Your task to perform on an android device: change text size in settings app Image 0: 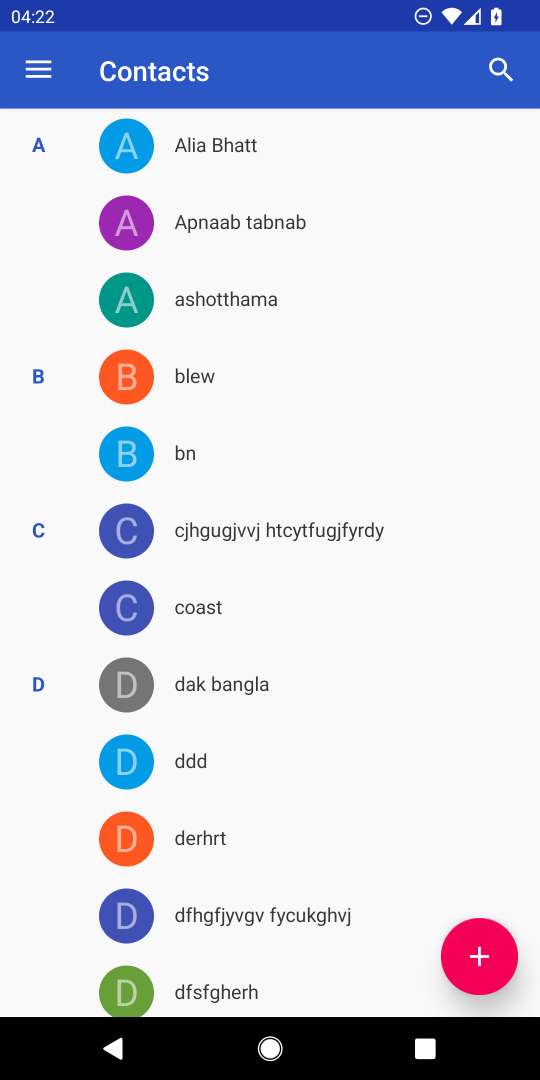
Step 0: press home button
Your task to perform on an android device: change text size in settings app Image 1: 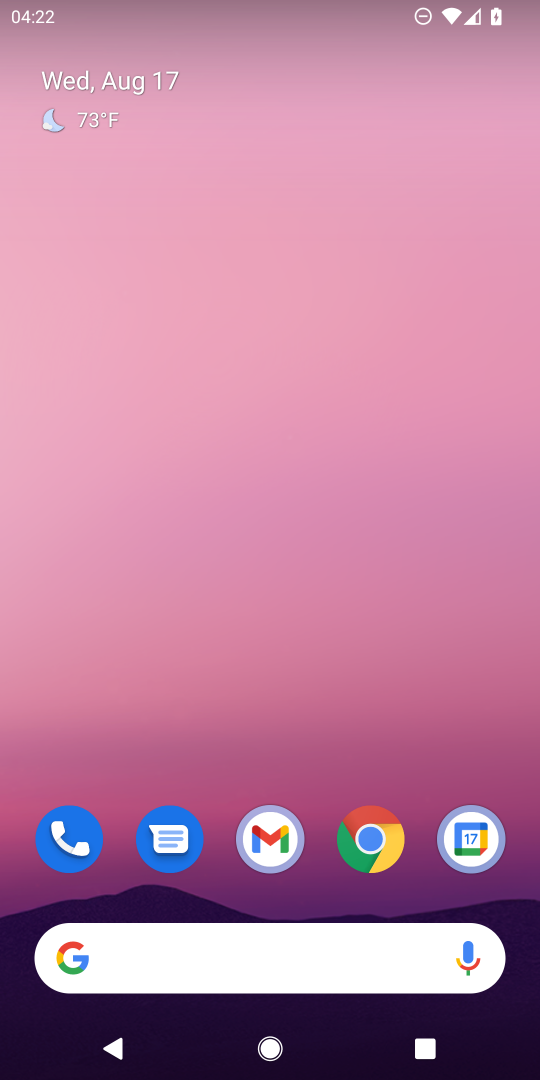
Step 1: drag from (354, 705) to (360, 23)
Your task to perform on an android device: change text size in settings app Image 2: 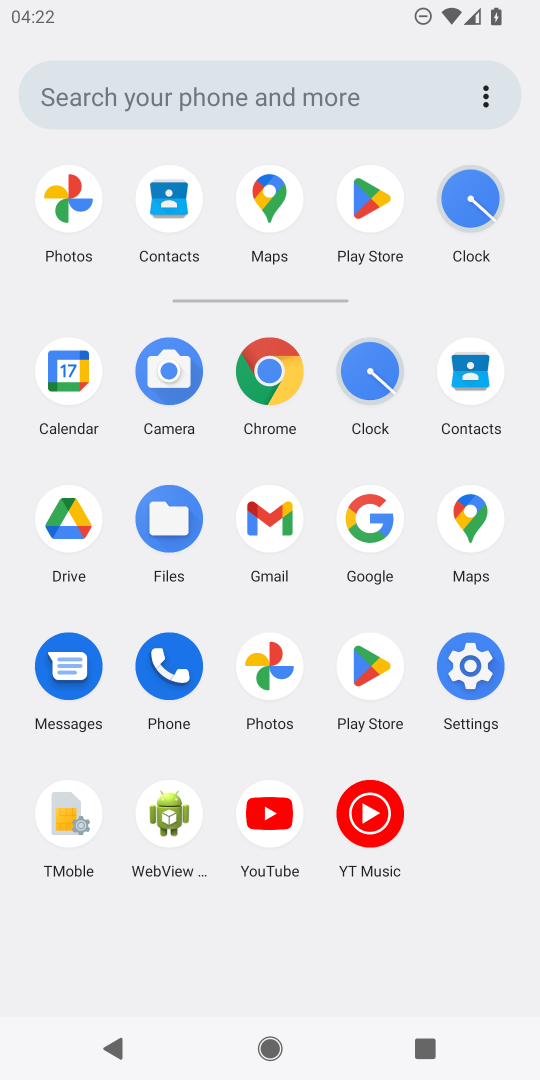
Step 2: click (462, 666)
Your task to perform on an android device: change text size in settings app Image 3: 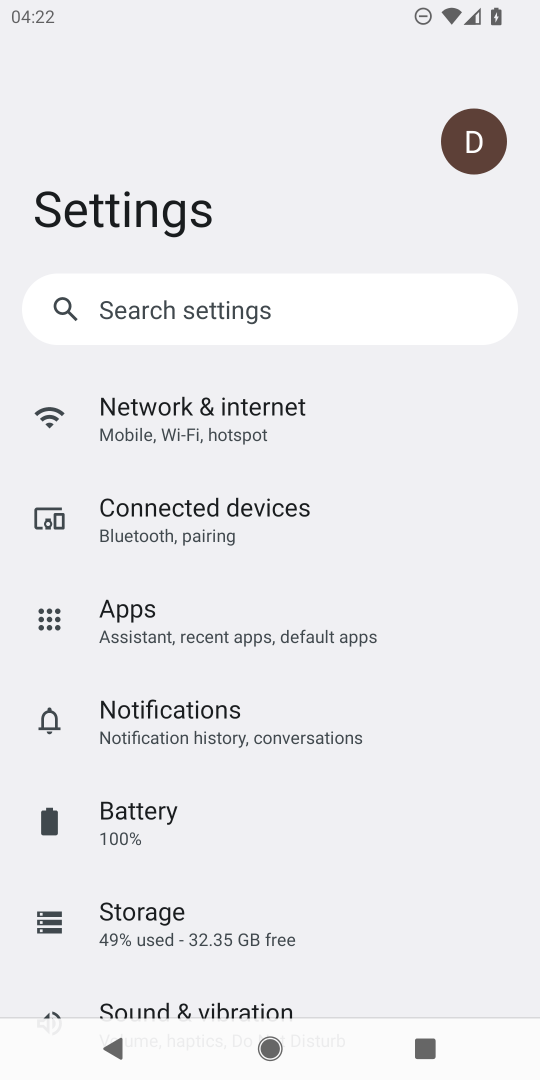
Step 3: drag from (165, 908) to (206, 564)
Your task to perform on an android device: change text size in settings app Image 4: 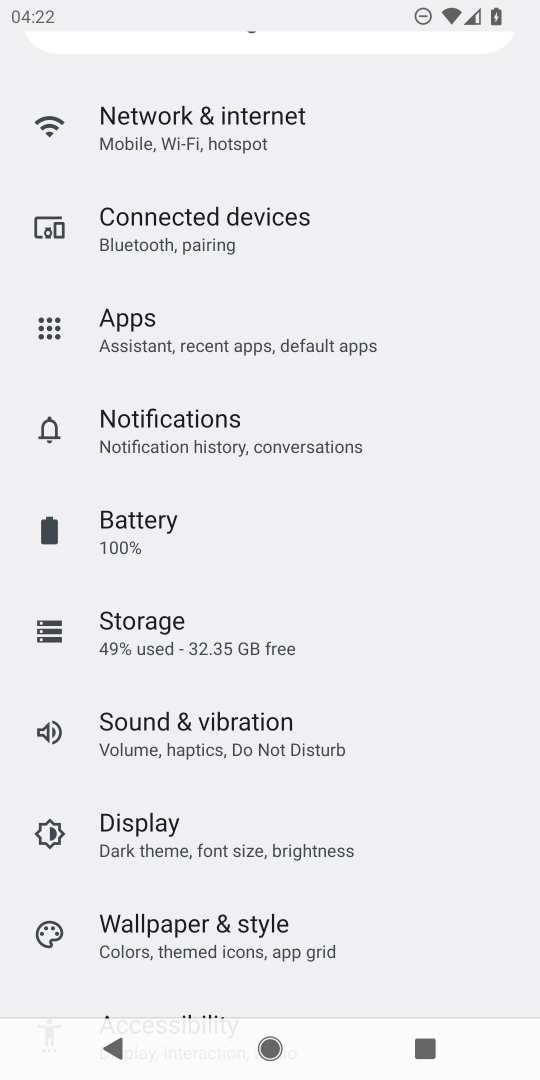
Step 4: drag from (188, 926) to (123, 842)
Your task to perform on an android device: change text size in settings app Image 5: 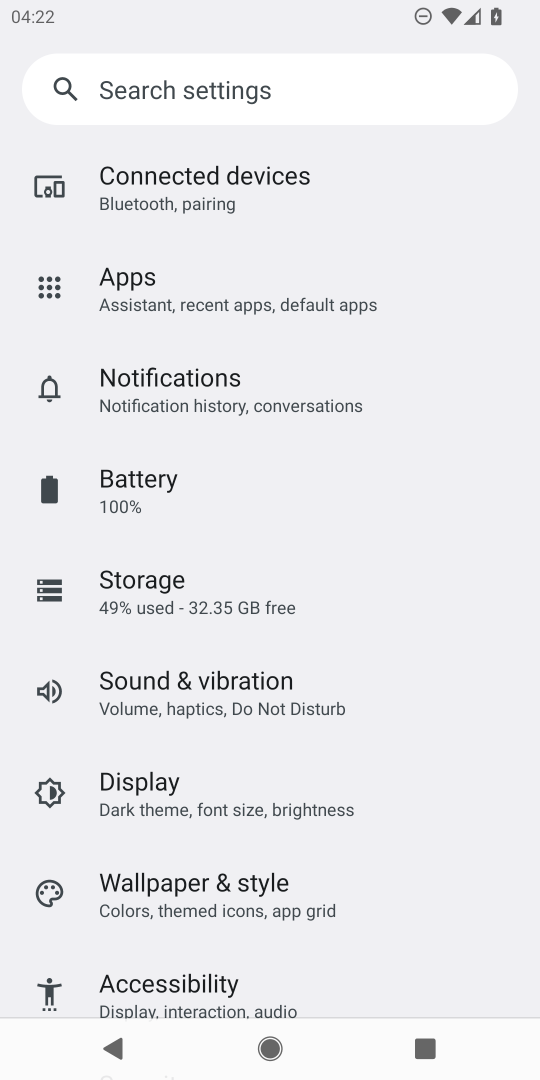
Step 5: click (209, 802)
Your task to perform on an android device: change text size in settings app Image 6: 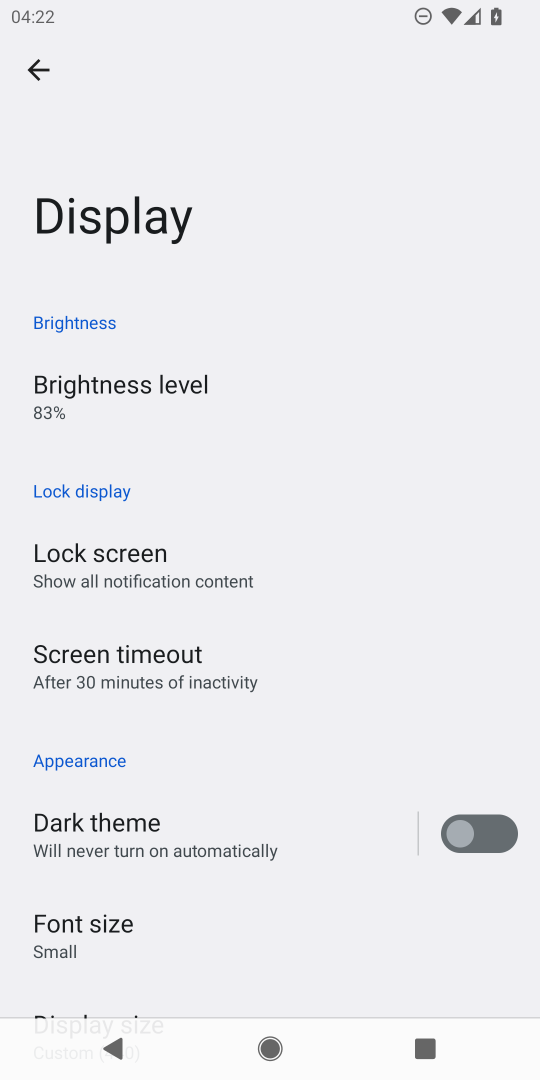
Step 6: drag from (138, 880) to (176, 593)
Your task to perform on an android device: change text size in settings app Image 7: 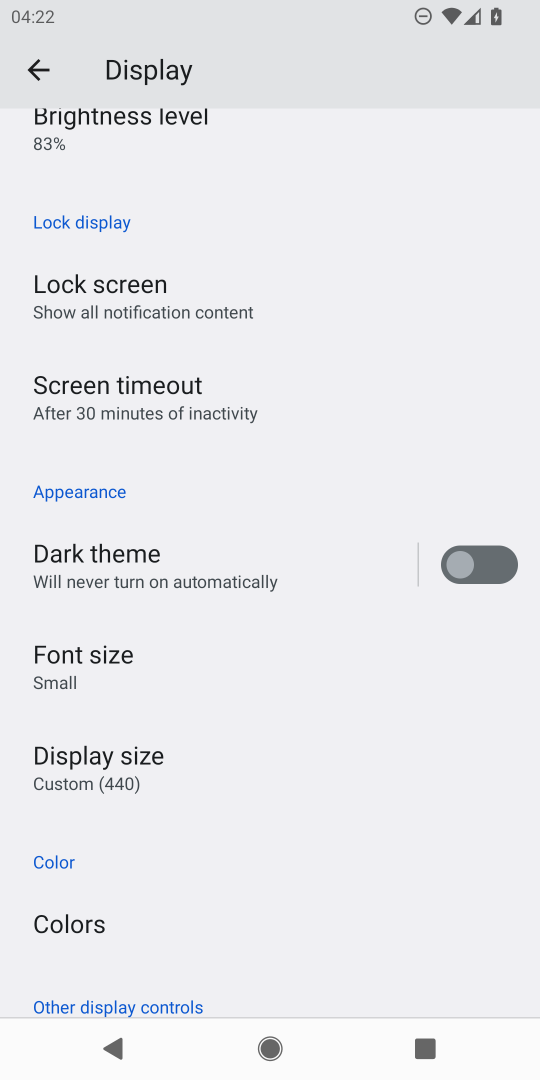
Step 7: click (71, 661)
Your task to perform on an android device: change text size in settings app Image 8: 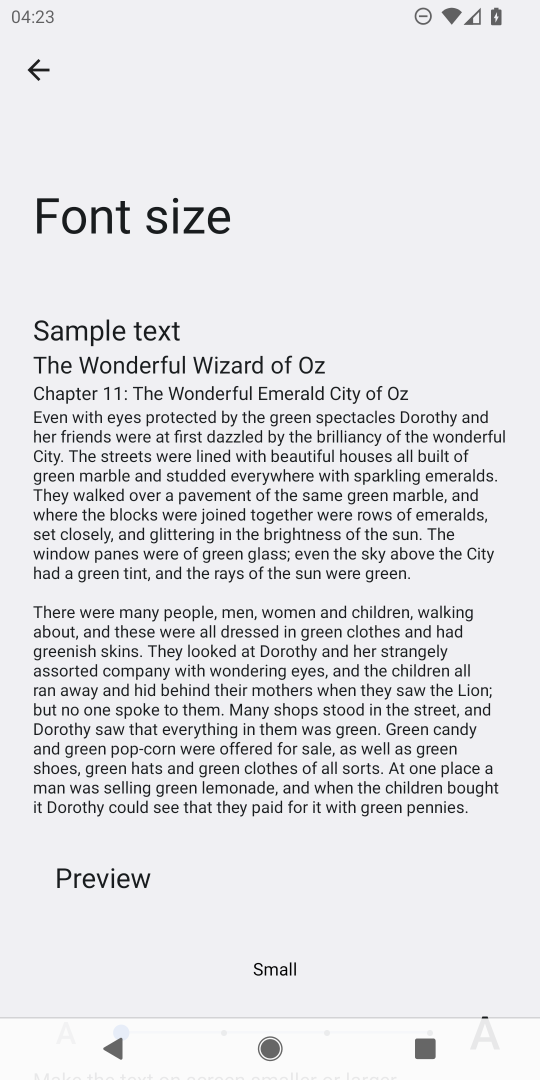
Step 8: drag from (224, 957) to (196, 397)
Your task to perform on an android device: change text size in settings app Image 9: 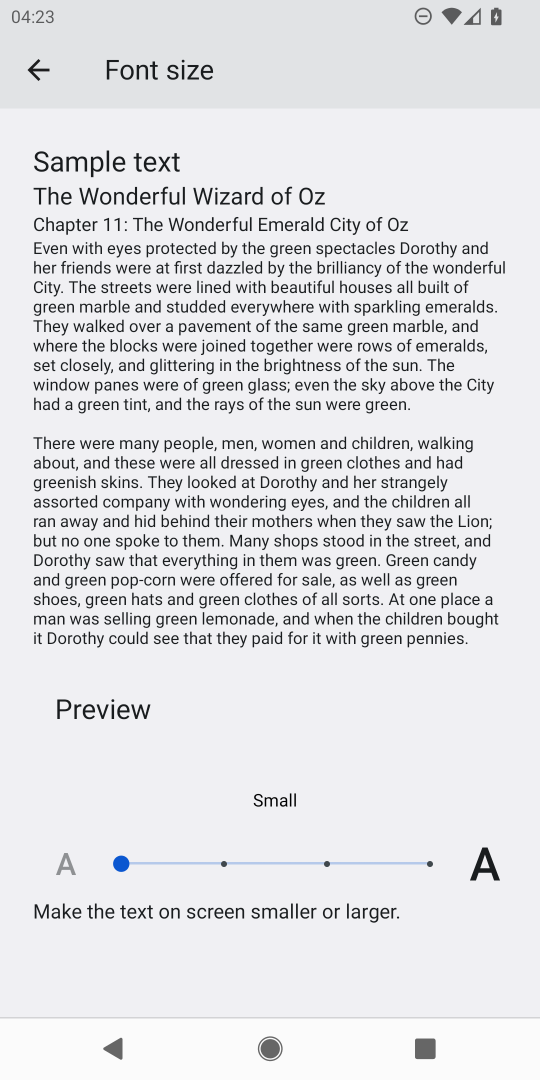
Step 9: click (429, 858)
Your task to perform on an android device: change text size in settings app Image 10: 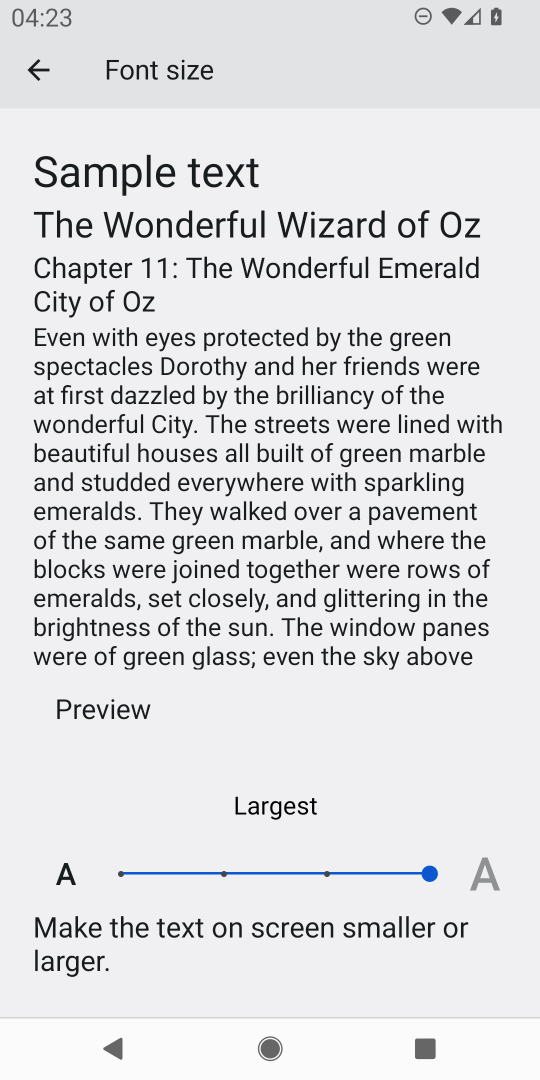
Step 10: task complete